Your task to perform on an android device: turn on sleep mode Image 0: 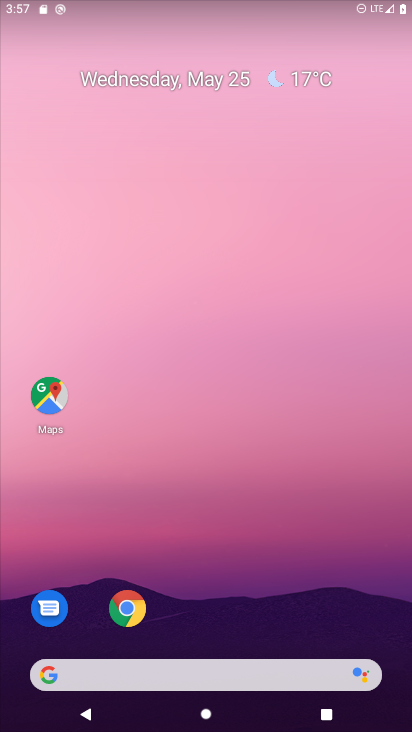
Step 0: drag from (370, 622) to (290, 91)
Your task to perform on an android device: turn on sleep mode Image 1: 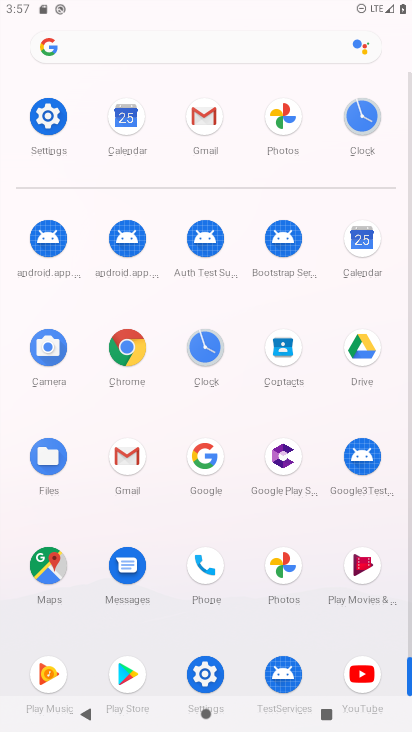
Step 1: click (203, 673)
Your task to perform on an android device: turn on sleep mode Image 2: 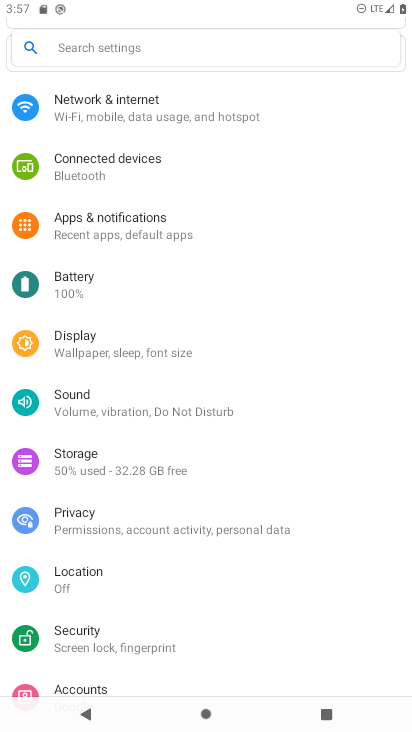
Step 2: click (98, 349)
Your task to perform on an android device: turn on sleep mode Image 3: 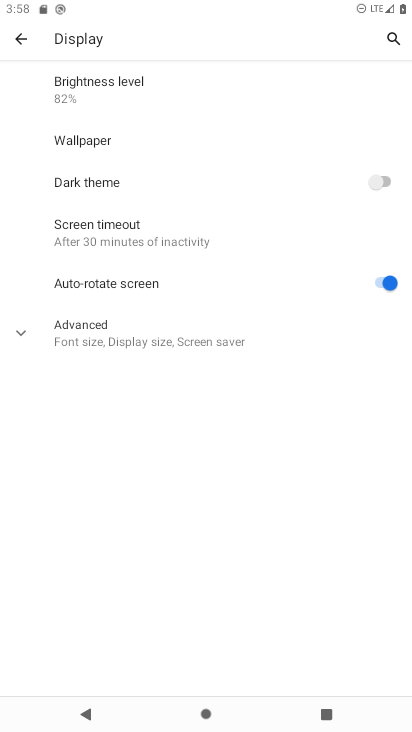
Step 3: click (8, 330)
Your task to perform on an android device: turn on sleep mode Image 4: 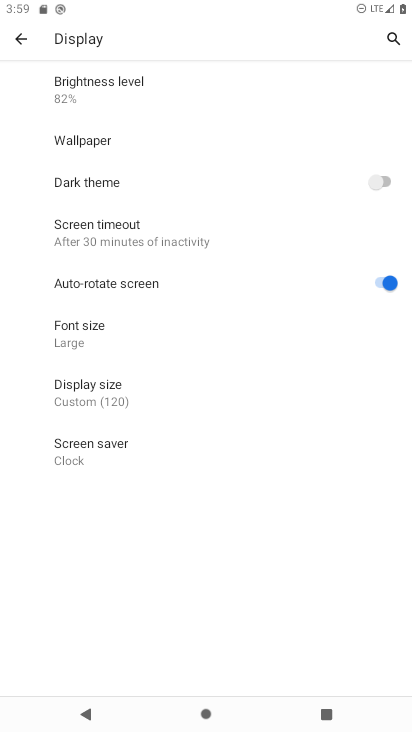
Step 4: task complete